Your task to perform on an android device: Open internet settings Image 0: 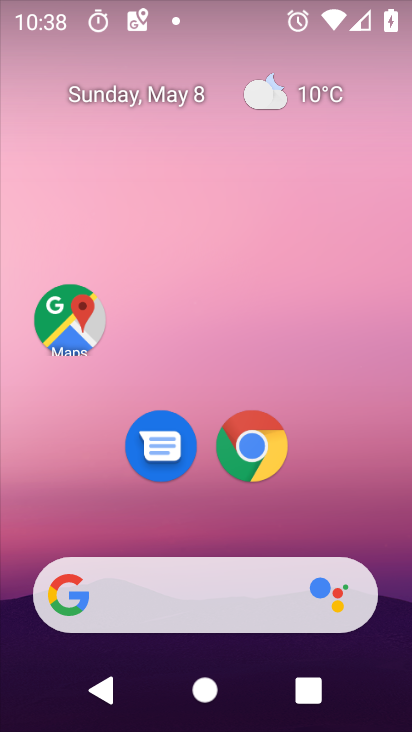
Step 0: drag from (360, 533) to (352, 8)
Your task to perform on an android device: Open internet settings Image 1: 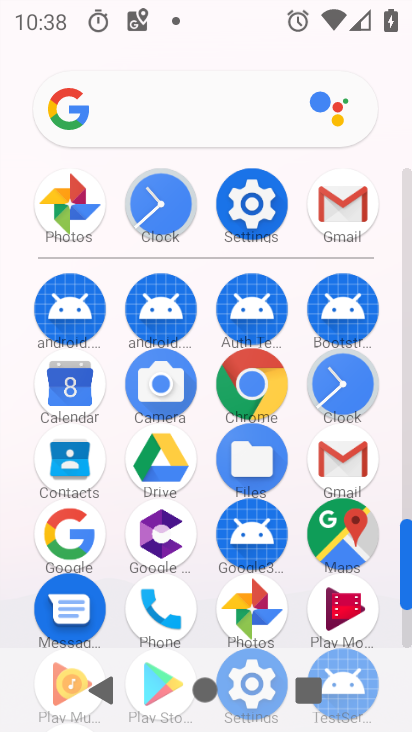
Step 1: click (256, 201)
Your task to perform on an android device: Open internet settings Image 2: 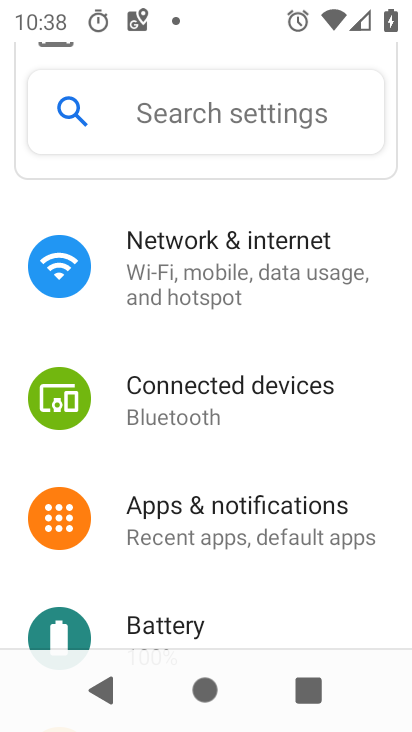
Step 2: click (201, 262)
Your task to perform on an android device: Open internet settings Image 3: 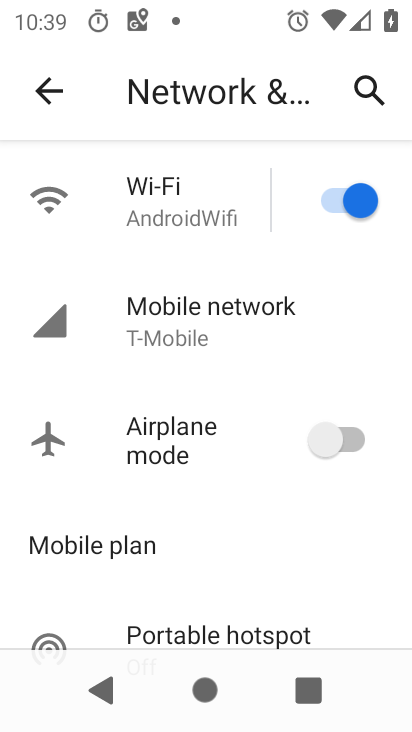
Step 3: task complete